Your task to perform on an android device: Is it going to rain tomorrow? Image 0: 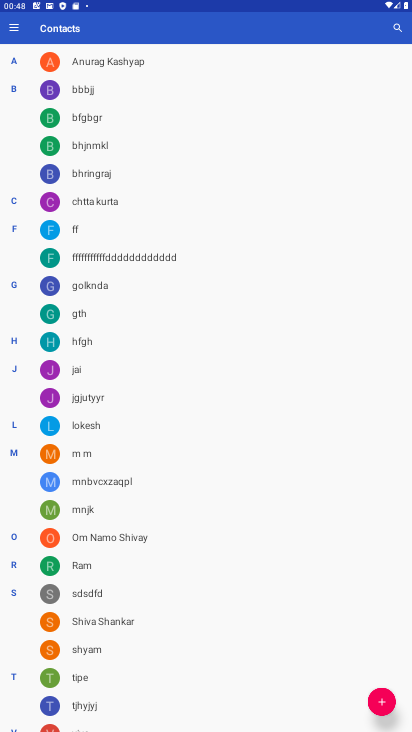
Step 0: press home button
Your task to perform on an android device: Is it going to rain tomorrow? Image 1: 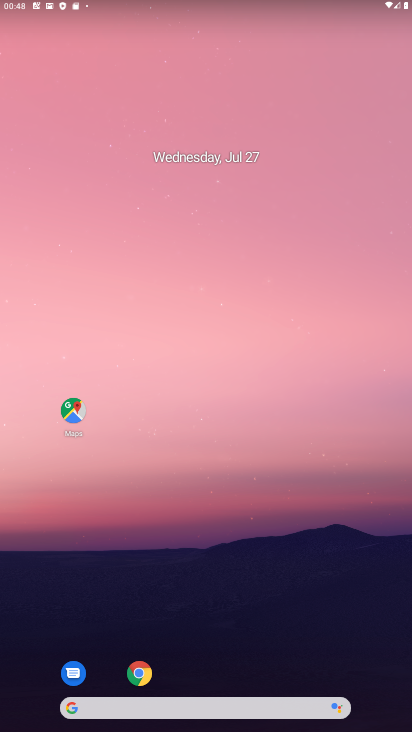
Step 1: drag from (233, 625) to (205, 105)
Your task to perform on an android device: Is it going to rain tomorrow? Image 2: 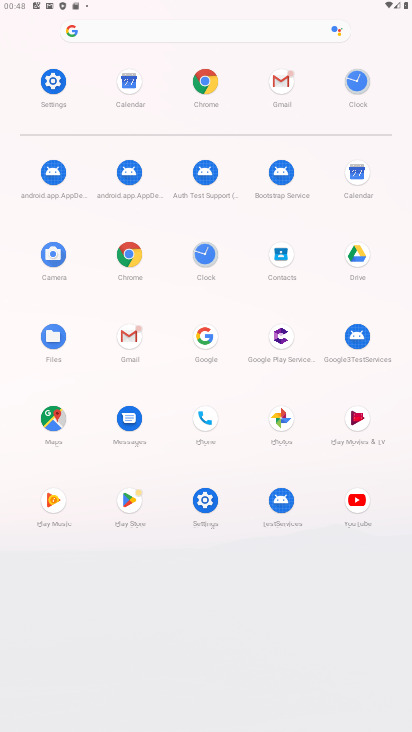
Step 2: click (202, 73)
Your task to perform on an android device: Is it going to rain tomorrow? Image 3: 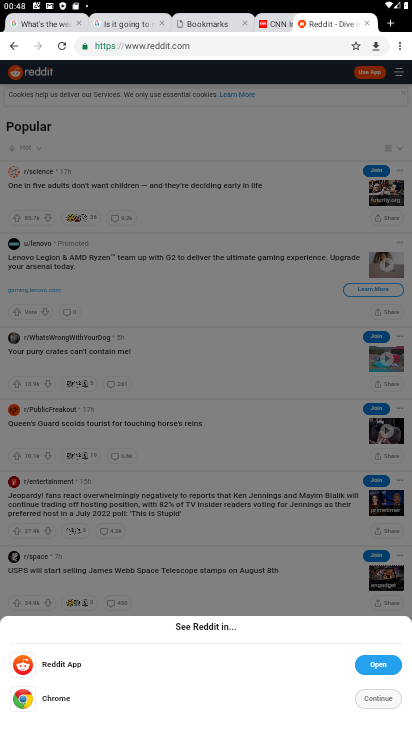
Step 3: click (385, 20)
Your task to perform on an android device: Is it going to rain tomorrow? Image 4: 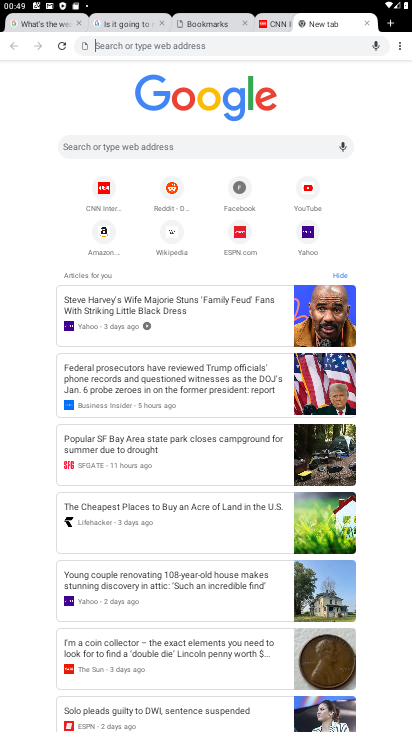
Step 4: click (155, 136)
Your task to perform on an android device: Is it going to rain tomorrow? Image 5: 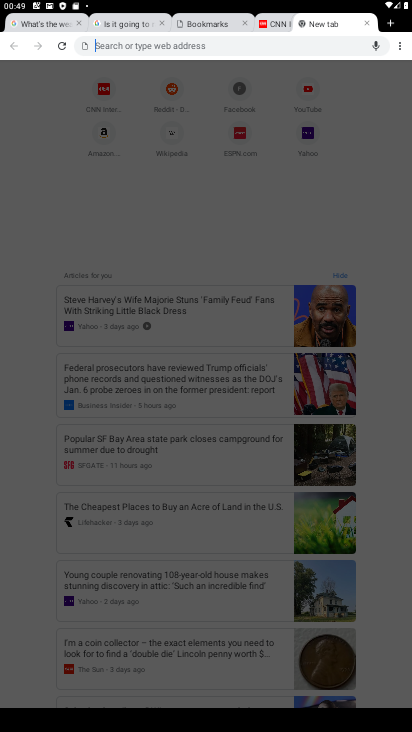
Step 5: type "Is it going to rain tomorrow? "
Your task to perform on an android device: Is it going to rain tomorrow? Image 6: 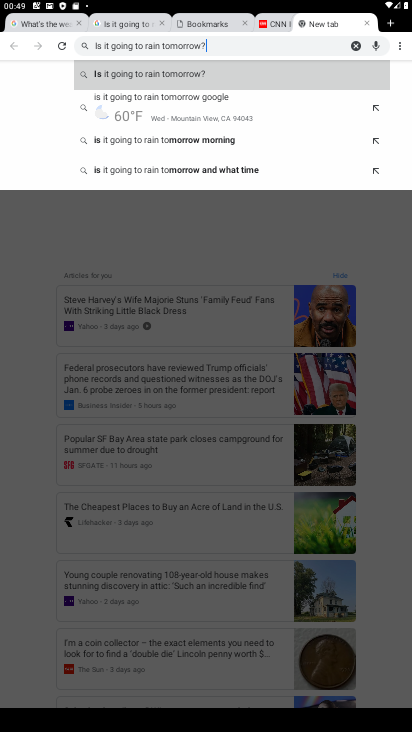
Step 6: click (264, 77)
Your task to perform on an android device: Is it going to rain tomorrow? Image 7: 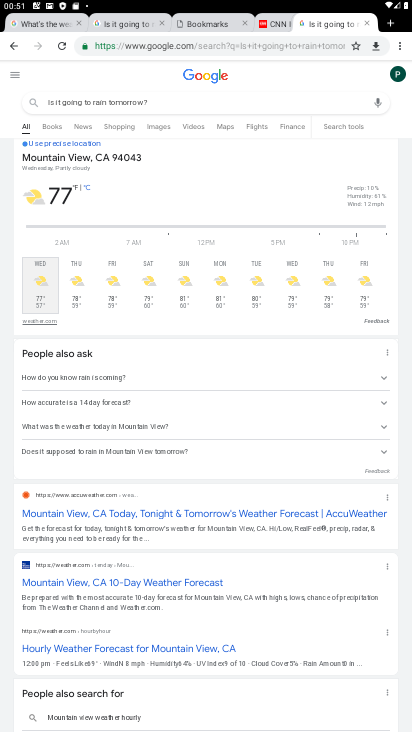
Step 7: task complete